Your task to perform on an android device: open chrome privacy settings Image 0: 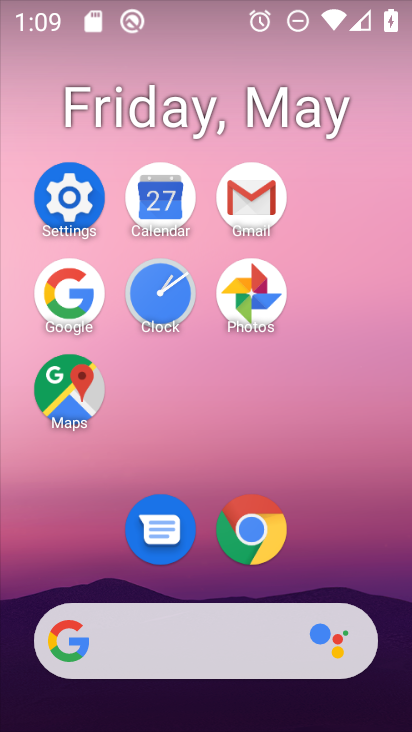
Step 0: click (288, 521)
Your task to perform on an android device: open chrome privacy settings Image 1: 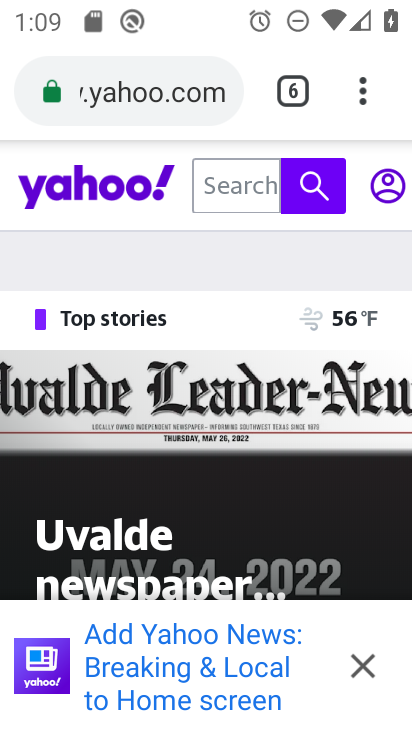
Step 1: click (366, 97)
Your task to perform on an android device: open chrome privacy settings Image 2: 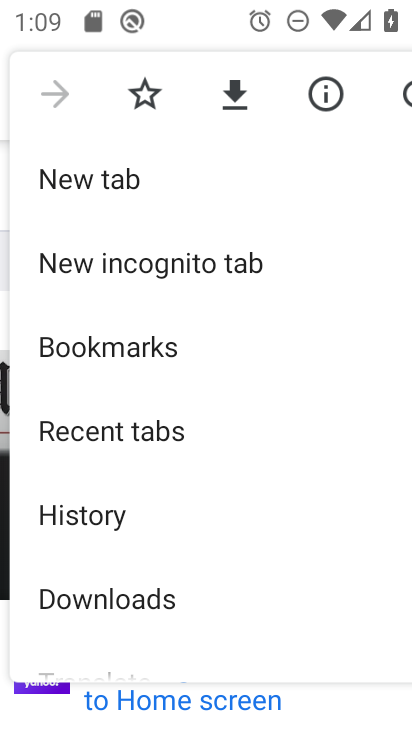
Step 2: drag from (215, 507) to (270, 154)
Your task to perform on an android device: open chrome privacy settings Image 3: 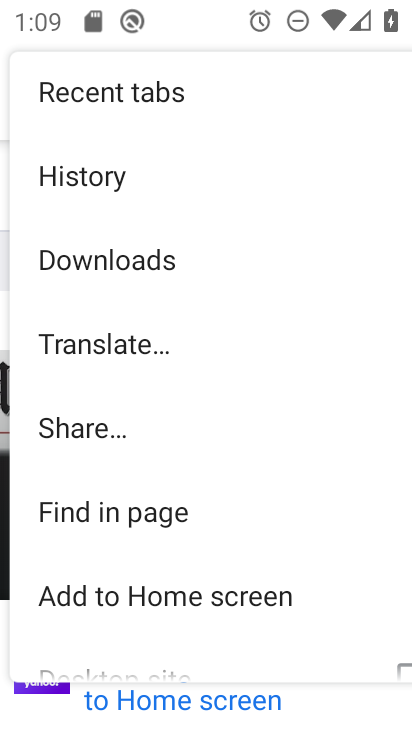
Step 3: drag from (196, 563) to (257, 191)
Your task to perform on an android device: open chrome privacy settings Image 4: 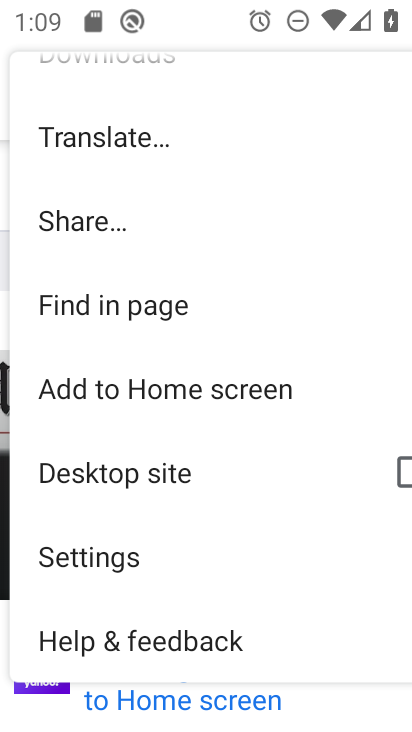
Step 4: click (161, 548)
Your task to perform on an android device: open chrome privacy settings Image 5: 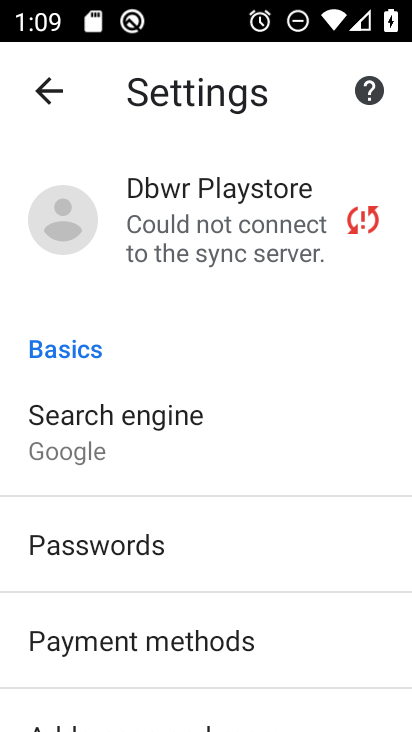
Step 5: drag from (215, 647) to (255, 203)
Your task to perform on an android device: open chrome privacy settings Image 6: 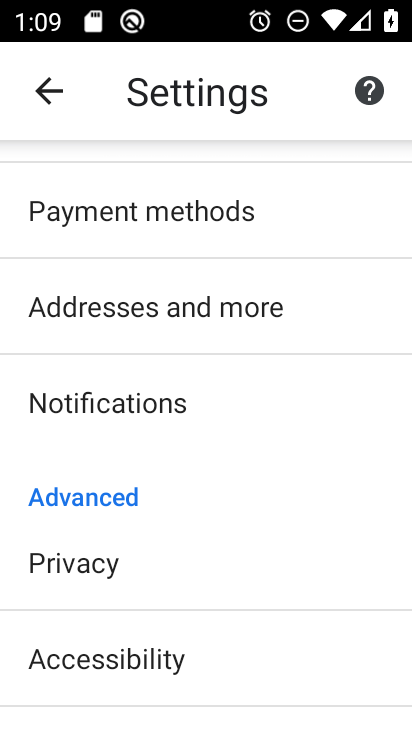
Step 6: drag from (222, 567) to (250, 201)
Your task to perform on an android device: open chrome privacy settings Image 7: 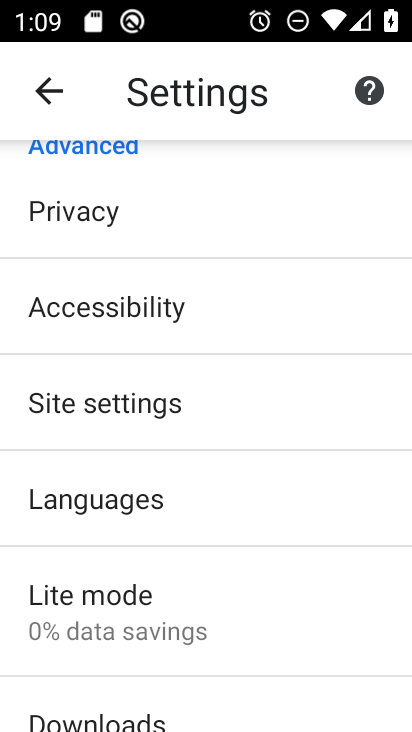
Step 7: drag from (234, 628) to (275, 256)
Your task to perform on an android device: open chrome privacy settings Image 8: 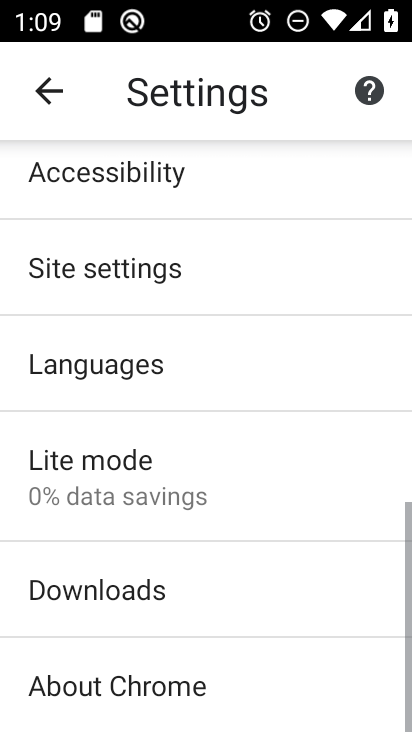
Step 8: drag from (248, 607) to (296, 251)
Your task to perform on an android device: open chrome privacy settings Image 9: 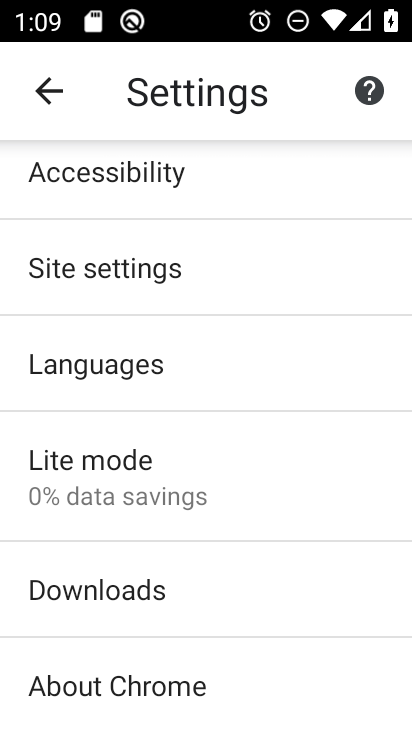
Step 9: drag from (263, 599) to (310, 232)
Your task to perform on an android device: open chrome privacy settings Image 10: 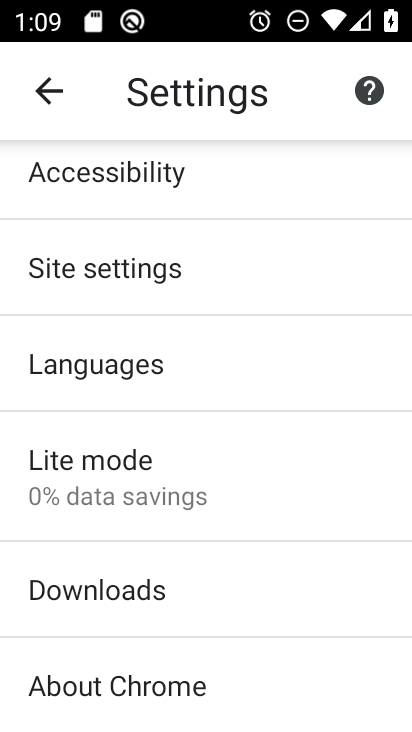
Step 10: drag from (297, 269) to (314, 556)
Your task to perform on an android device: open chrome privacy settings Image 11: 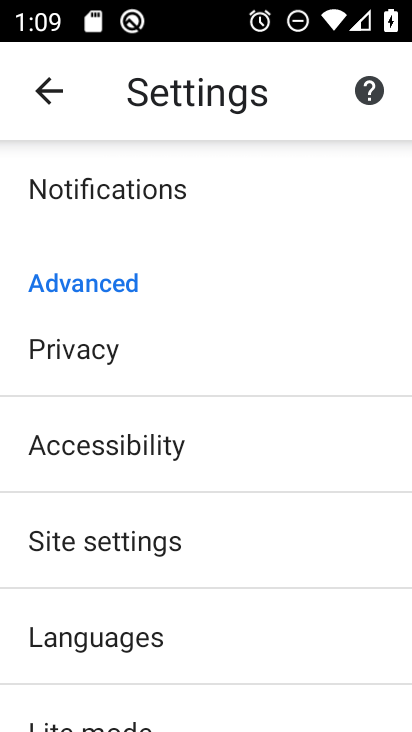
Step 11: click (212, 356)
Your task to perform on an android device: open chrome privacy settings Image 12: 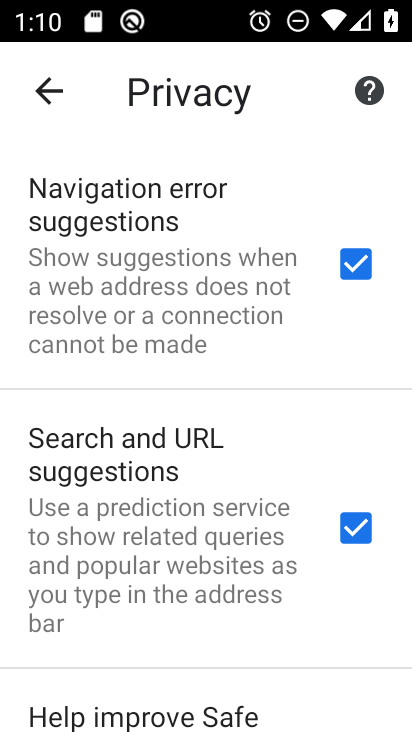
Step 12: task complete